Your task to perform on an android device: add a label to a message in the gmail app Image 0: 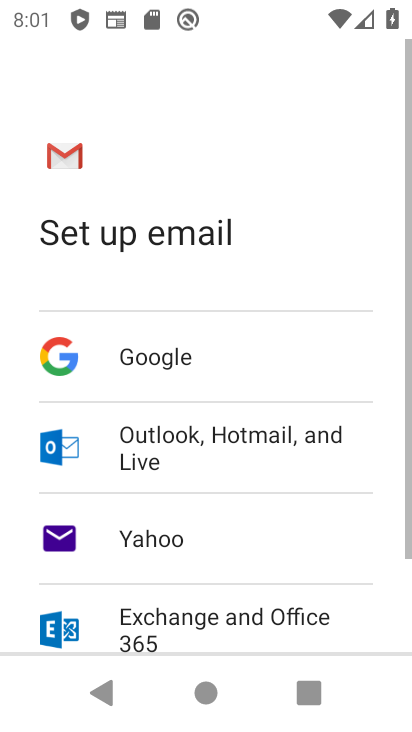
Step 0: press home button
Your task to perform on an android device: add a label to a message in the gmail app Image 1: 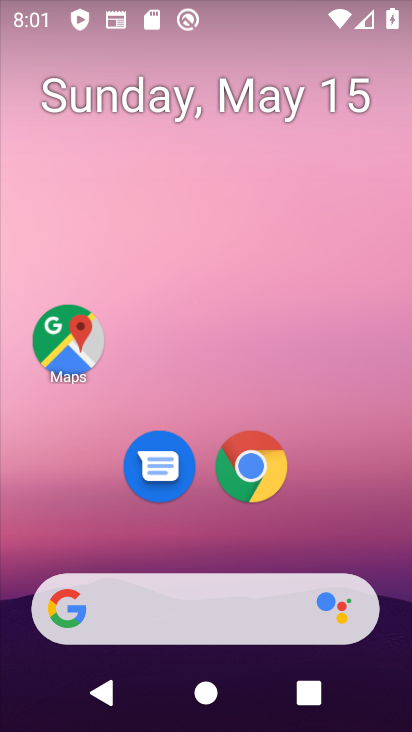
Step 1: drag from (176, 567) to (372, 12)
Your task to perform on an android device: add a label to a message in the gmail app Image 2: 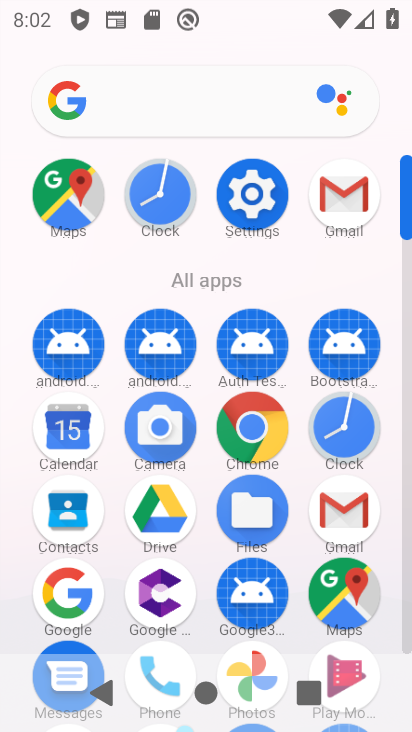
Step 2: click (337, 507)
Your task to perform on an android device: add a label to a message in the gmail app Image 3: 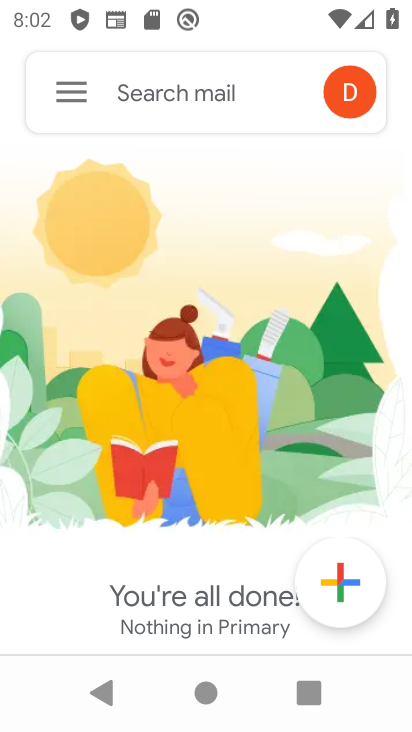
Step 3: task complete